Your task to perform on an android device: Search for pizza restaurants on Maps Image 0: 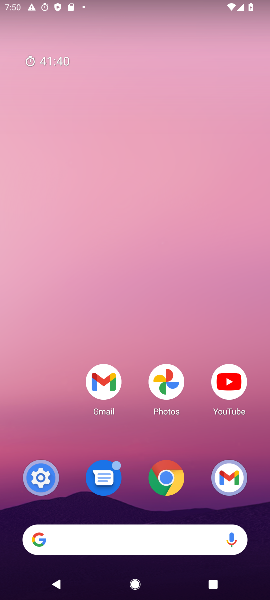
Step 0: drag from (131, 490) to (129, 290)
Your task to perform on an android device: Search for pizza restaurants on Maps Image 1: 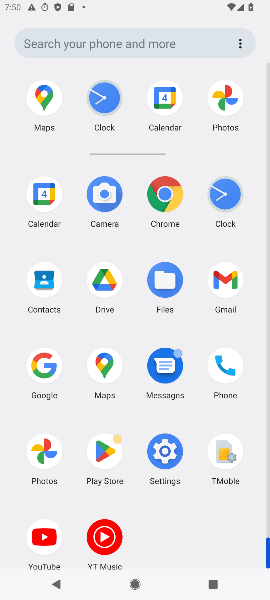
Step 1: drag from (149, 480) to (144, 179)
Your task to perform on an android device: Search for pizza restaurants on Maps Image 2: 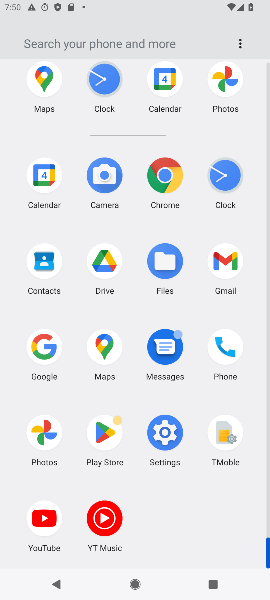
Step 2: drag from (134, 150) to (127, 438)
Your task to perform on an android device: Search for pizza restaurants on Maps Image 3: 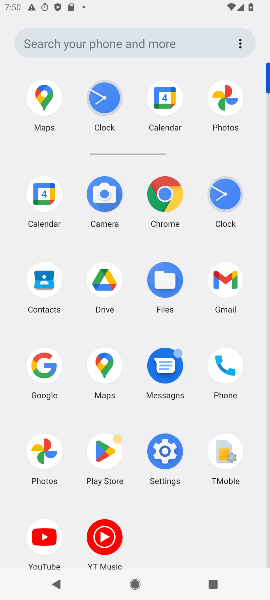
Step 3: drag from (146, 447) to (113, 210)
Your task to perform on an android device: Search for pizza restaurants on Maps Image 4: 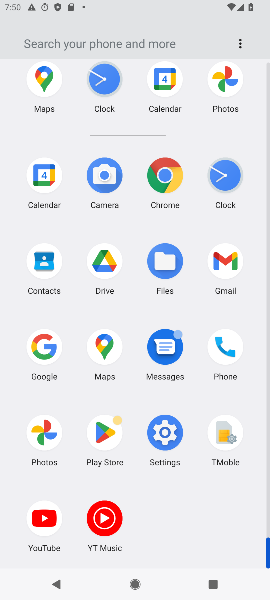
Step 4: click (106, 356)
Your task to perform on an android device: Search for pizza restaurants on Maps Image 5: 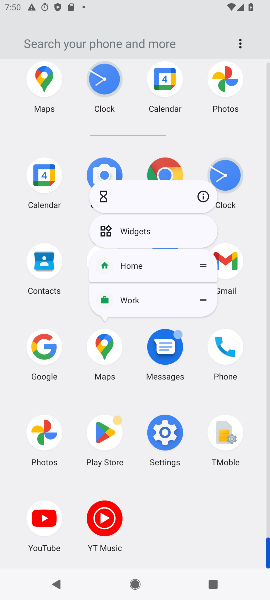
Step 5: click (199, 198)
Your task to perform on an android device: Search for pizza restaurants on Maps Image 6: 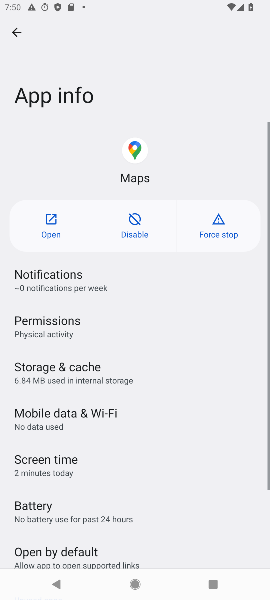
Step 6: click (45, 201)
Your task to perform on an android device: Search for pizza restaurants on Maps Image 7: 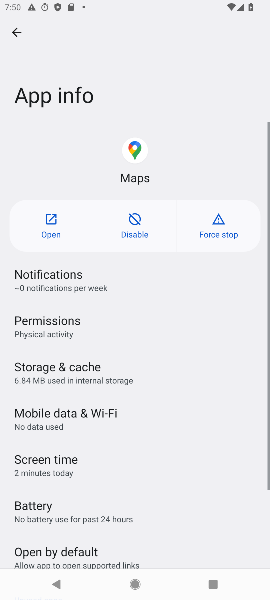
Step 7: click (51, 209)
Your task to perform on an android device: Search for pizza restaurants on Maps Image 8: 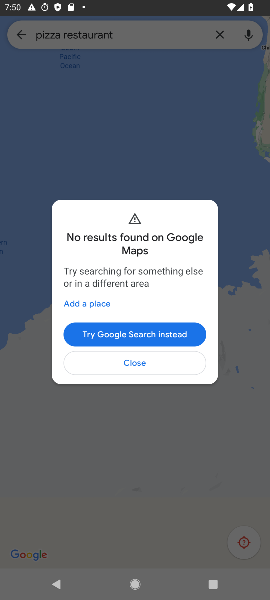
Step 8: click (133, 359)
Your task to perform on an android device: Search for pizza restaurants on Maps Image 9: 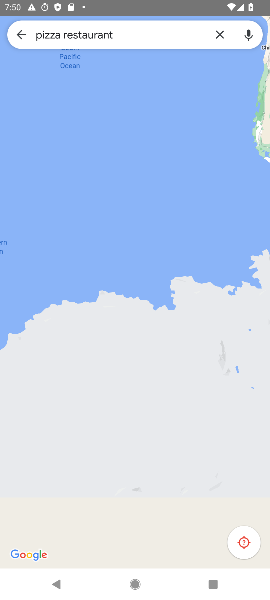
Step 9: click (154, 41)
Your task to perform on an android device: Search for pizza restaurants on Maps Image 10: 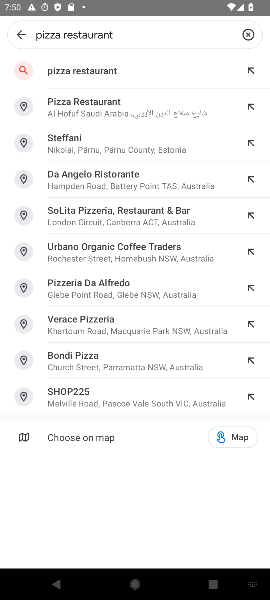
Step 10: click (56, 75)
Your task to perform on an android device: Search for pizza restaurants on Maps Image 11: 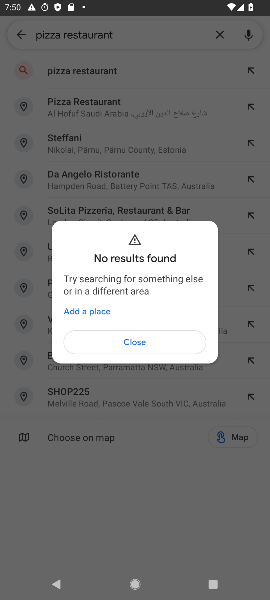
Step 11: click (146, 340)
Your task to perform on an android device: Search for pizza restaurants on Maps Image 12: 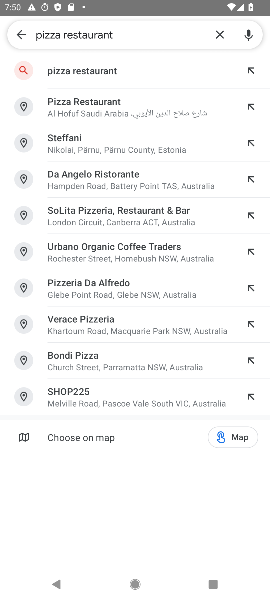
Step 12: click (109, 104)
Your task to perform on an android device: Search for pizza restaurants on Maps Image 13: 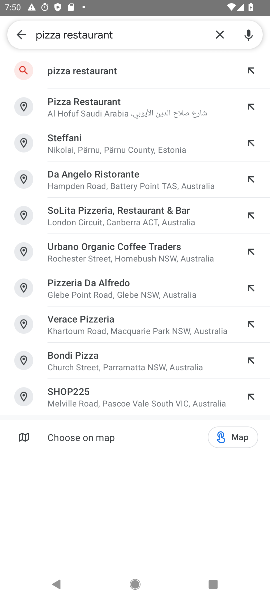
Step 13: task complete